Your task to perform on an android device: turn off picture-in-picture Image 0: 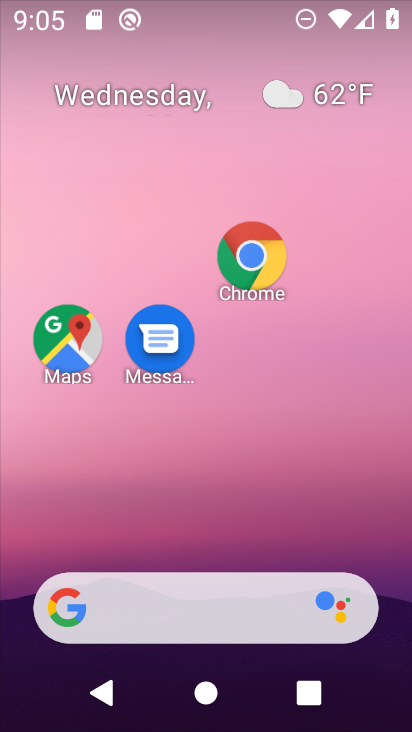
Step 0: click (251, 256)
Your task to perform on an android device: turn off picture-in-picture Image 1: 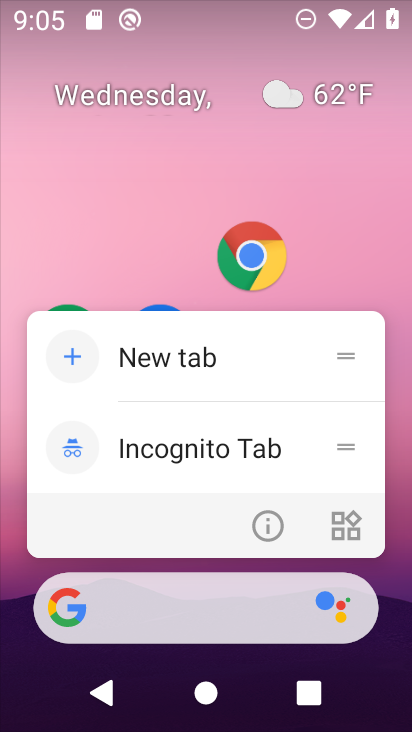
Step 1: click (255, 523)
Your task to perform on an android device: turn off picture-in-picture Image 2: 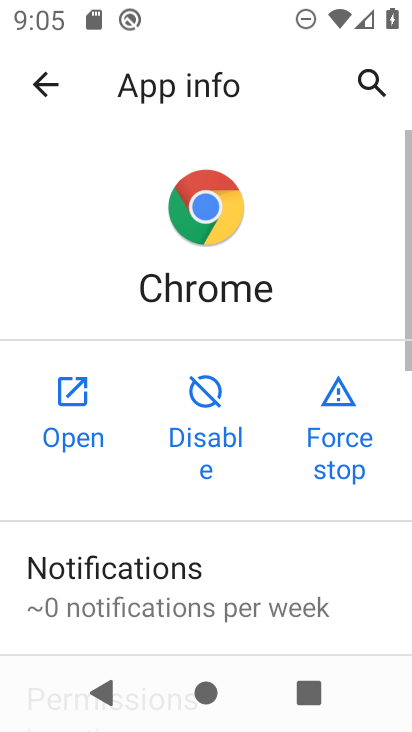
Step 2: drag from (266, 527) to (317, 0)
Your task to perform on an android device: turn off picture-in-picture Image 3: 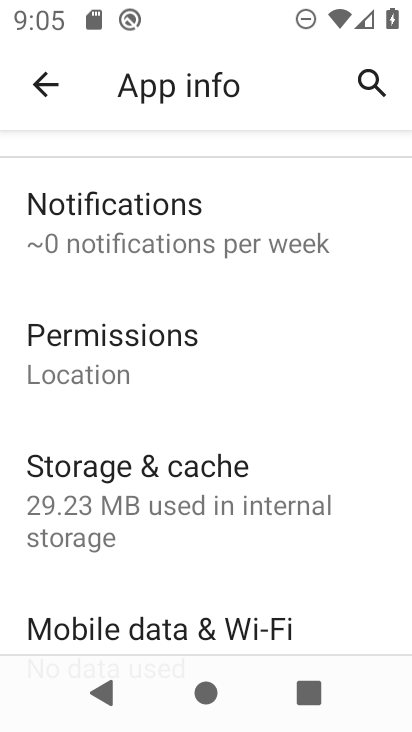
Step 3: drag from (274, 515) to (270, 11)
Your task to perform on an android device: turn off picture-in-picture Image 4: 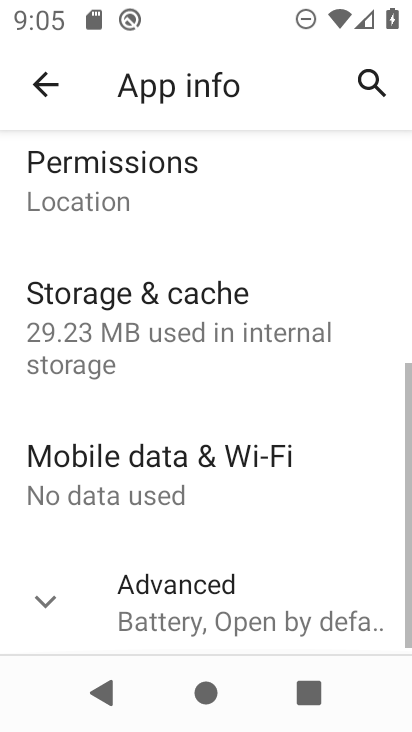
Step 4: click (185, 594)
Your task to perform on an android device: turn off picture-in-picture Image 5: 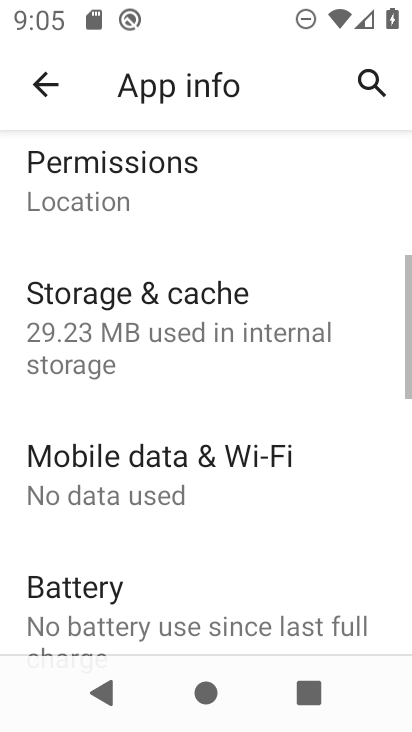
Step 5: drag from (187, 513) to (178, 37)
Your task to perform on an android device: turn off picture-in-picture Image 6: 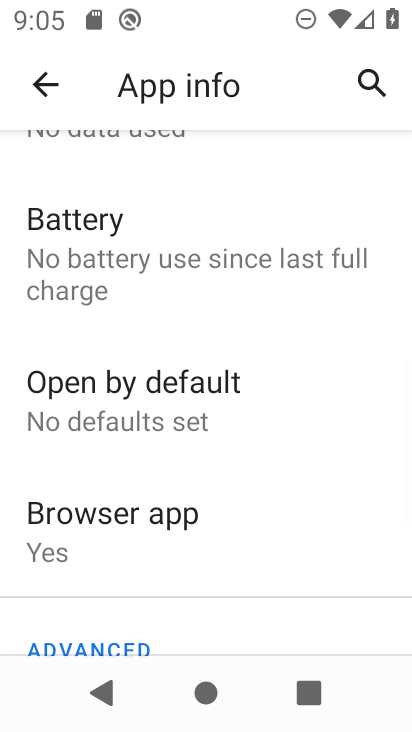
Step 6: drag from (212, 558) to (202, 176)
Your task to perform on an android device: turn off picture-in-picture Image 7: 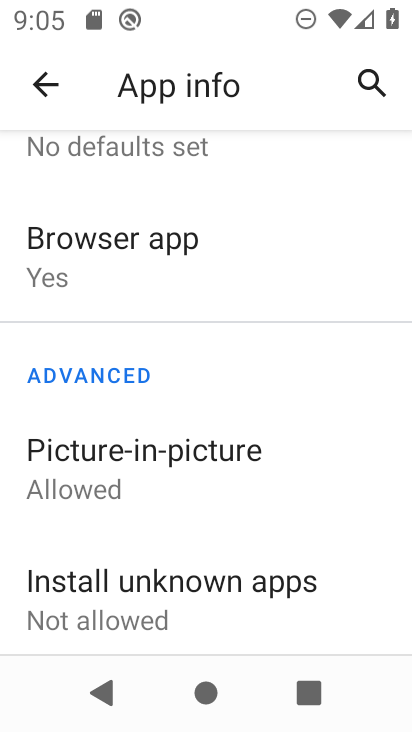
Step 7: click (139, 461)
Your task to perform on an android device: turn off picture-in-picture Image 8: 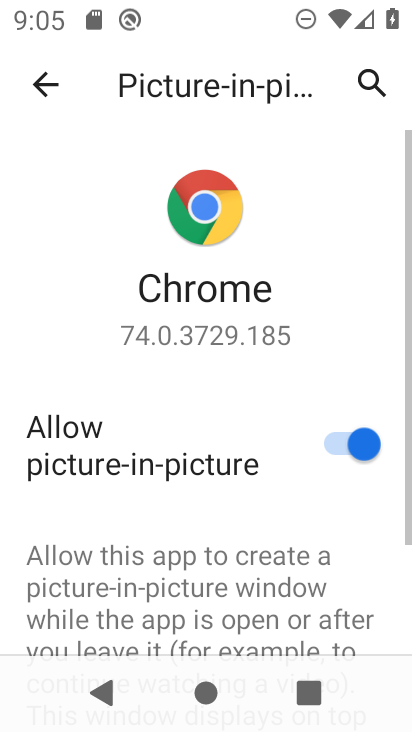
Step 8: click (341, 460)
Your task to perform on an android device: turn off picture-in-picture Image 9: 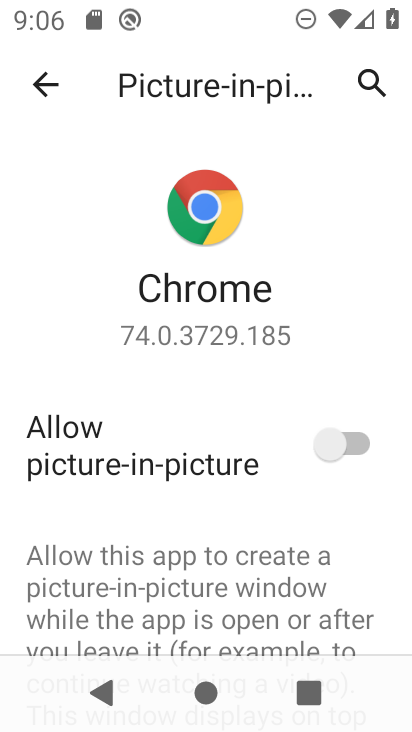
Step 9: task complete